Your task to perform on an android device: change the clock display to digital Image 0: 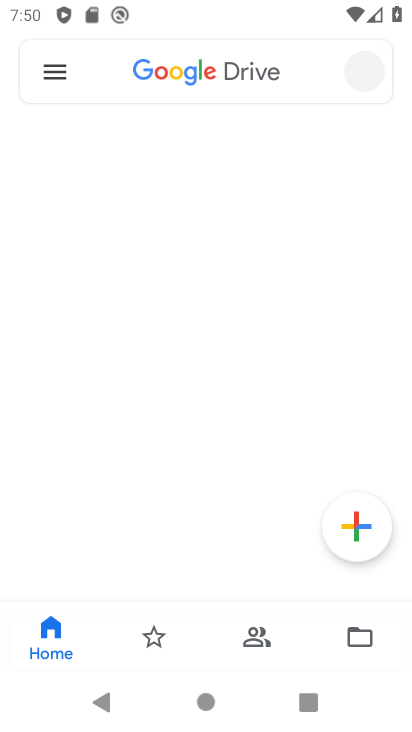
Step 0: drag from (381, 606) to (309, 142)
Your task to perform on an android device: change the clock display to digital Image 1: 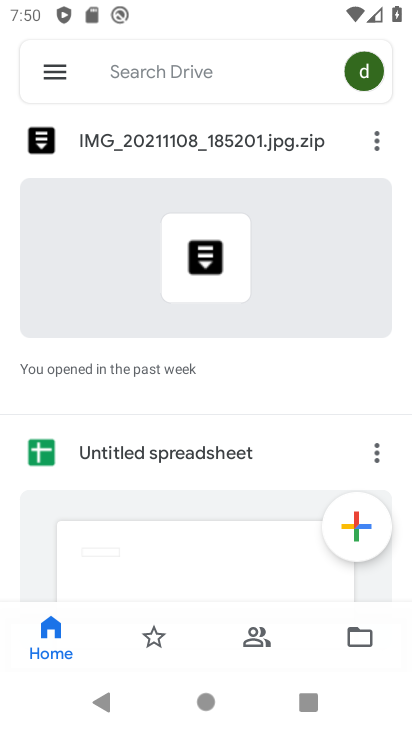
Step 1: press back button
Your task to perform on an android device: change the clock display to digital Image 2: 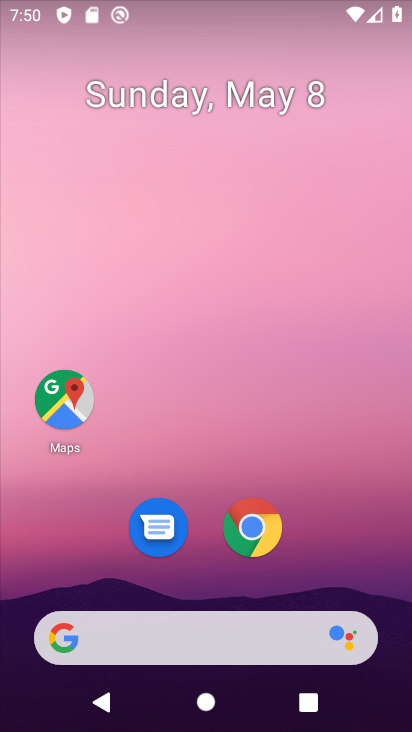
Step 2: drag from (400, 661) to (295, 27)
Your task to perform on an android device: change the clock display to digital Image 3: 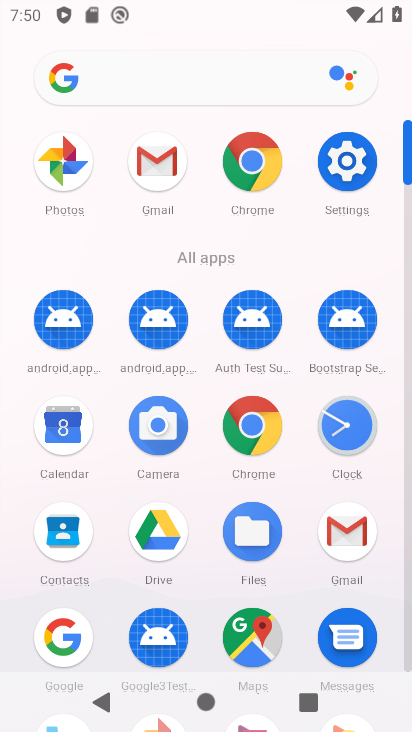
Step 3: drag from (6, 615) to (9, 315)
Your task to perform on an android device: change the clock display to digital Image 4: 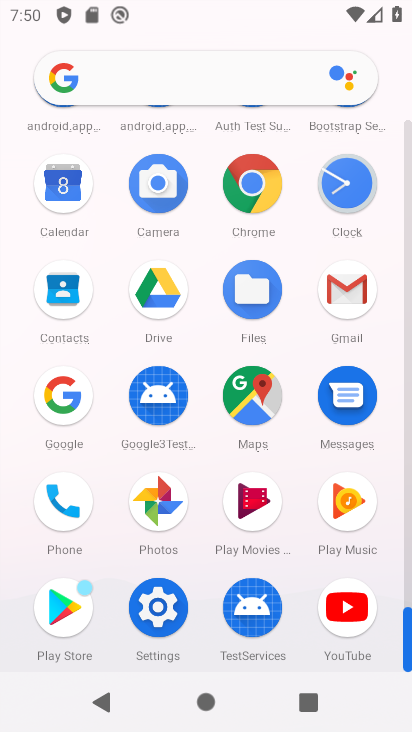
Step 4: click (343, 186)
Your task to perform on an android device: change the clock display to digital Image 5: 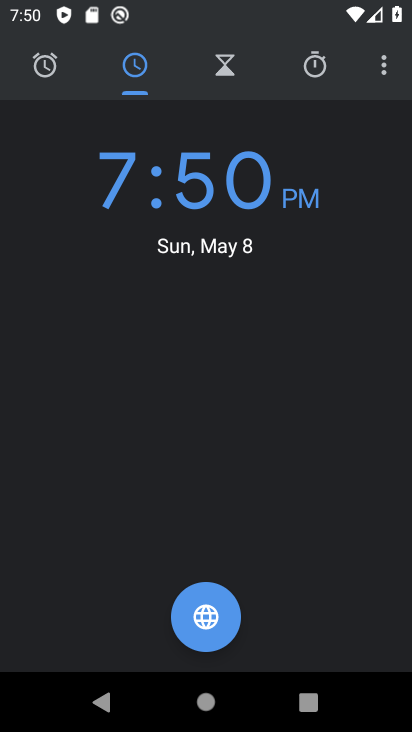
Step 5: task complete